Your task to perform on an android device: Open network settings Image 0: 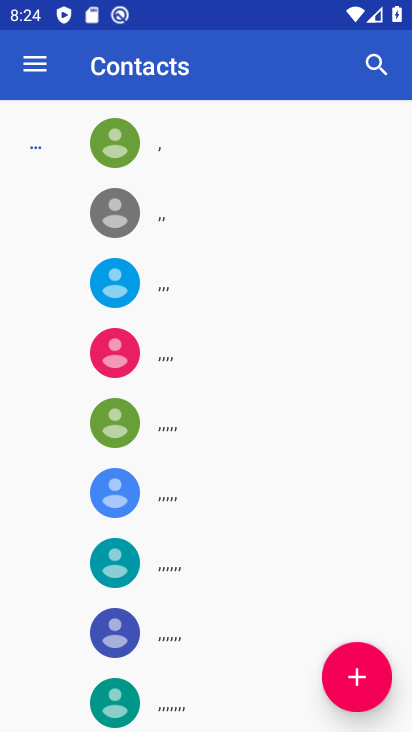
Step 0: press home button
Your task to perform on an android device: Open network settings Image 1: 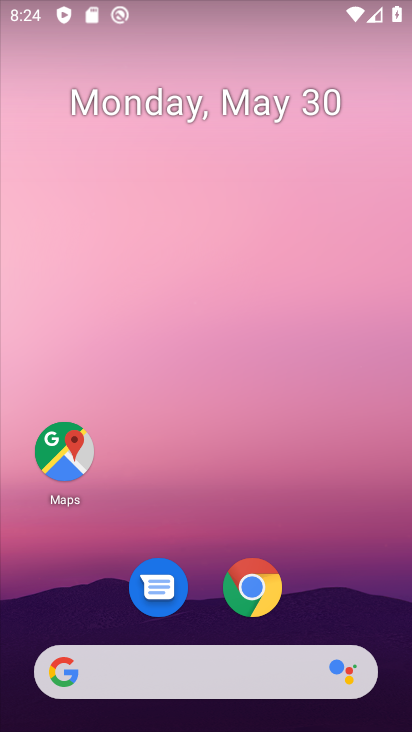
Step 1: drag from (202, 583) to (256, 67)
Your task to perform on an android device: Open network settings Image 2: 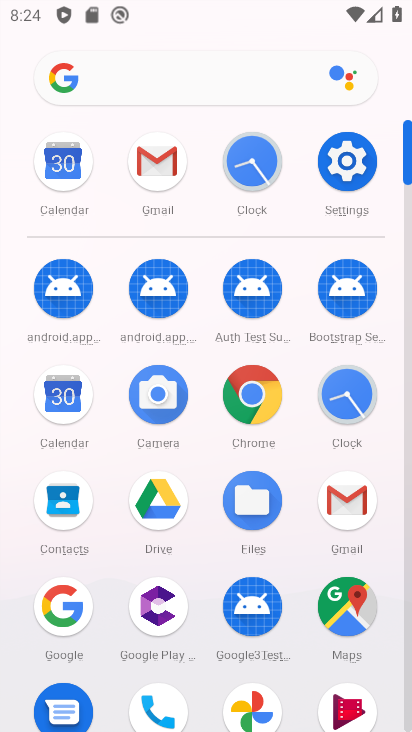
Step 2: click (334, 161)
Your task to perform on an android device: Open network settings Image 3: 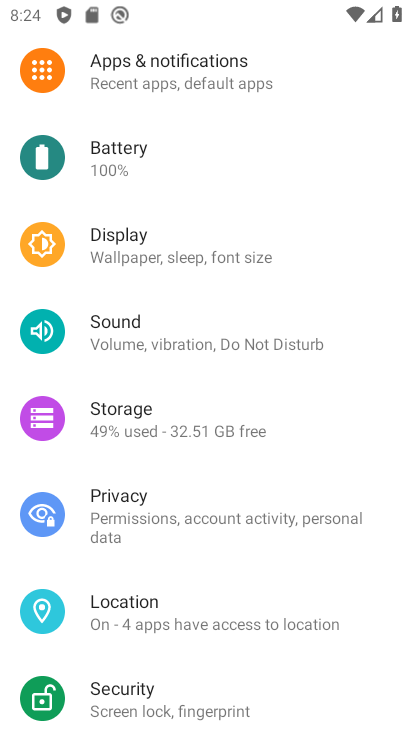
Step 3: drag from (213, 132) to (201, 484)
Your task to perform on an android device: Open network settings Image 4: 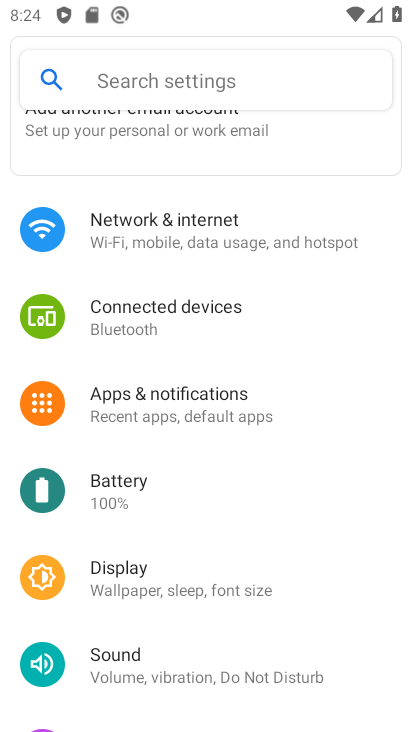
Step 4: click (173, 224)
Your task to perform on an android device: Open network settings Image 5: 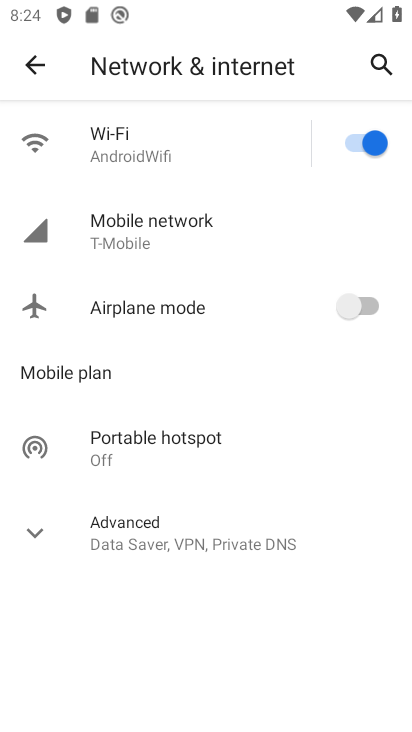
Step 5: click (175, 232)
Your task to perform on an android device: Open network settings Image 6: 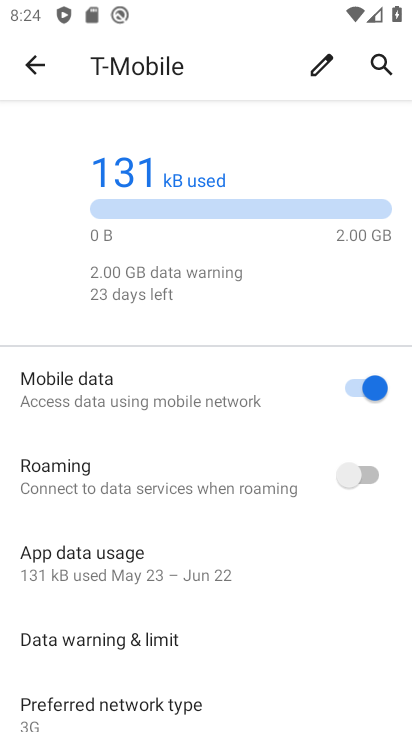
Step 6: task complete